Your task to perform on an android device: Check the news Image 0: 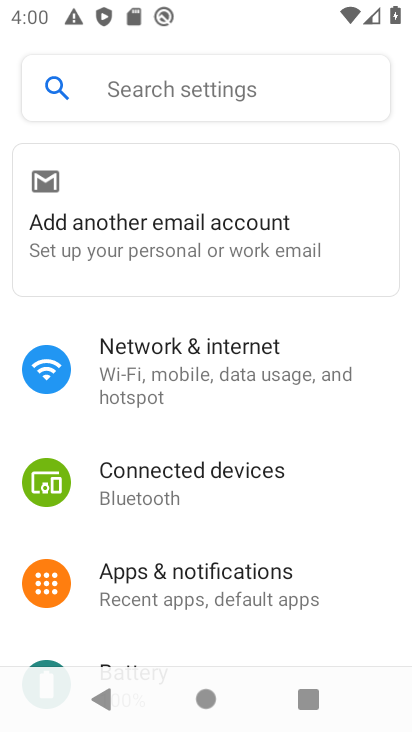
Step 0: press home button
Your task to perform on an android device: Check the news Image 1: 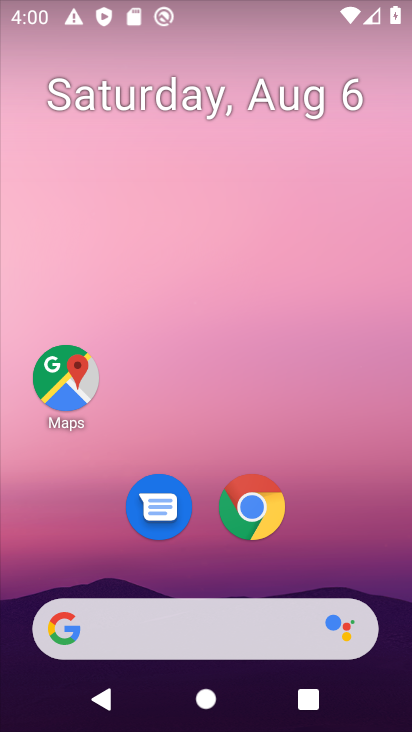
Step 1: click (215, 625)
Your task to perform on an android device: Check the news Image 2: 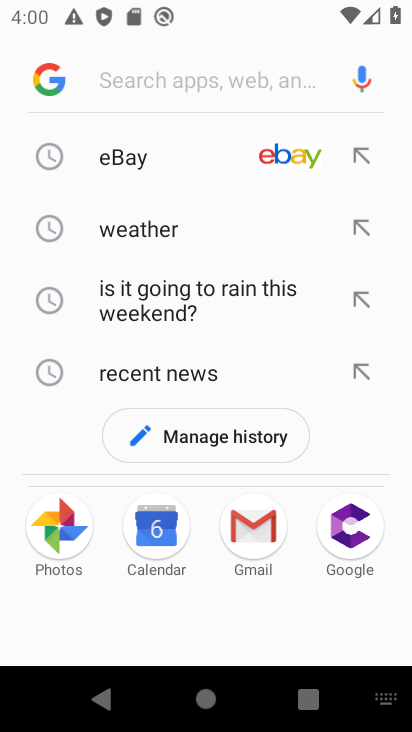
Step 2: type "Check the news"
Your task to perform on an android device: Check the news Image 3: 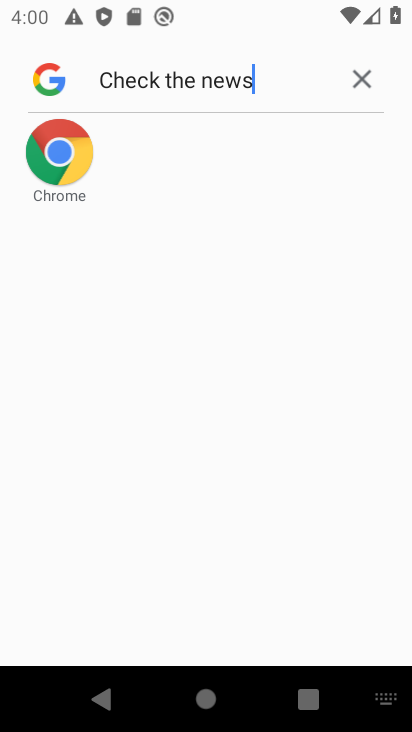
Step 3: press enter
Your task to perform on an android device: Check the news Image 4: 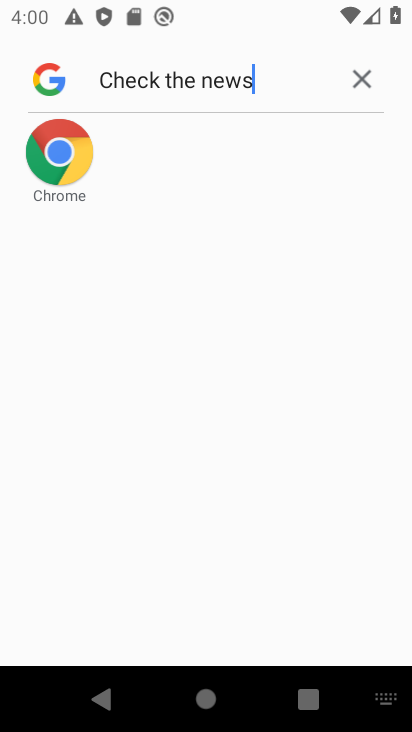
Step 4: type ""
Your task to perform on an android device: Check the news Image 5: 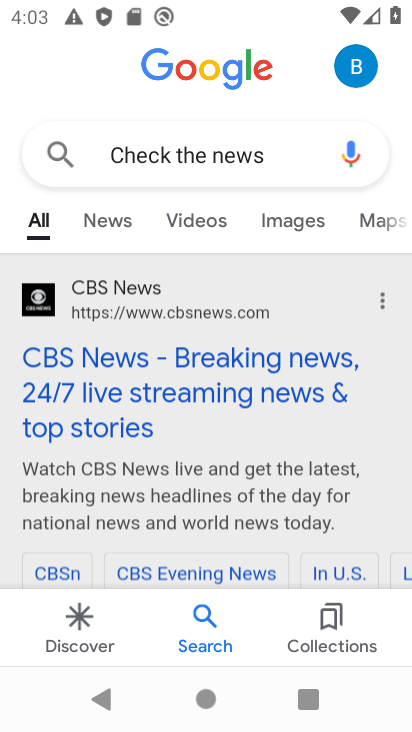
Step 5: task complete